Your task to perform on an android device: see tabs open on other devices in the chrome app Image 0: 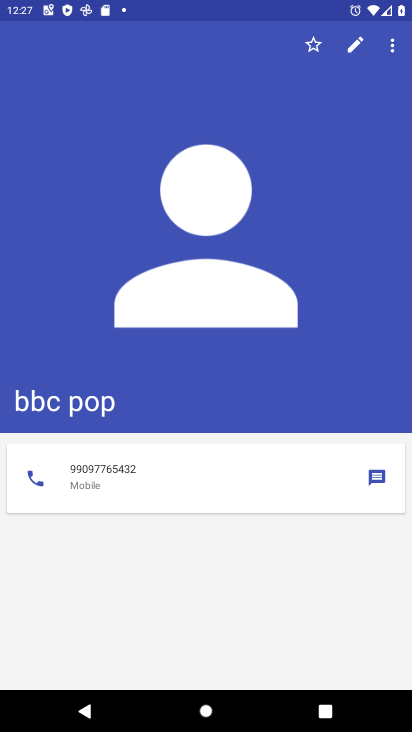
Step 0: press home button
Your task to perform on an android device: see tabs open on other devices in the chrome app Image 1: 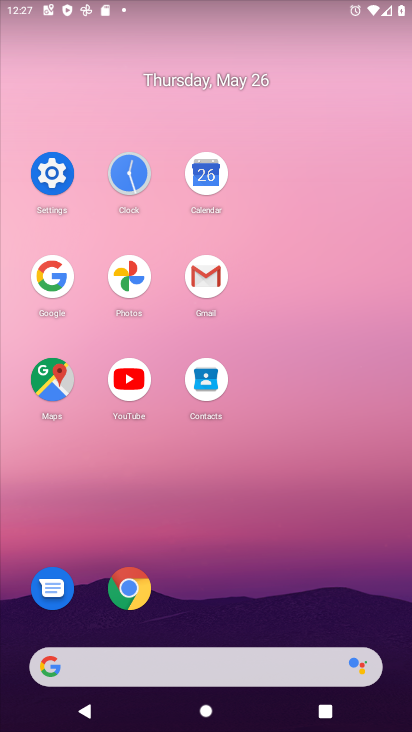
Step 1: click (137, 583)
Your task to perform on an android device: see tabs open on other devices in the chrome app Image 2: 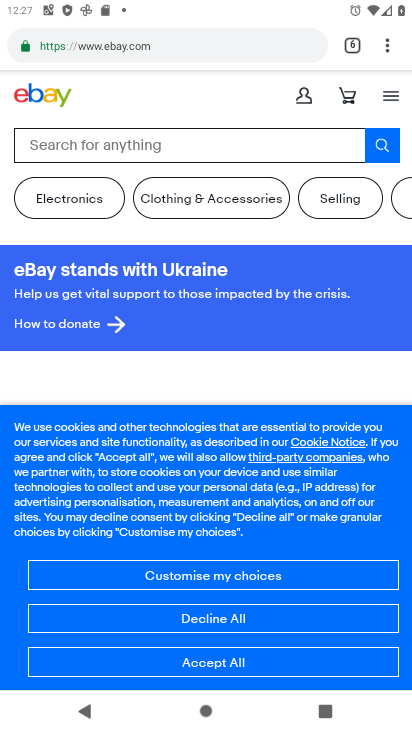
Step 2: click (375, 52)
Your task to perform on an android device: see tabs open on other devices in the chrome app Image 3: 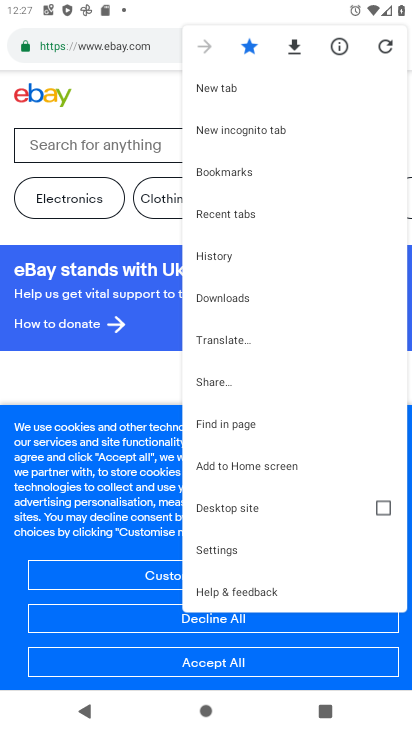
Step 3: click (262, 210)
Your task to perform on an android device: see tabs open on other devices in the chrome app Image 4: 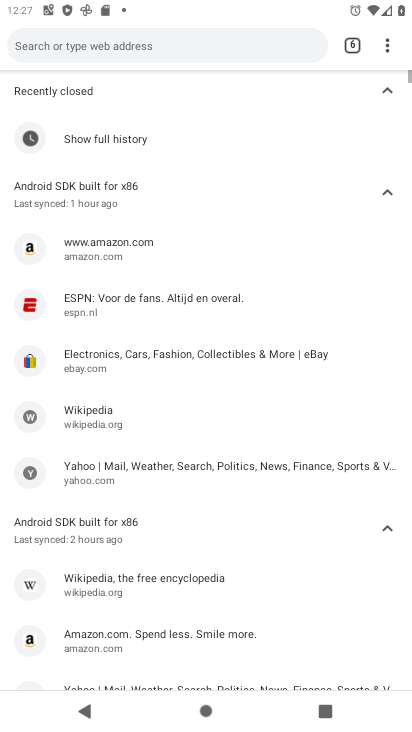
Step 4: task complete